Your task to perform on an android device: Open Google Chrome and click the shortcut for Amazon.com Image 0: 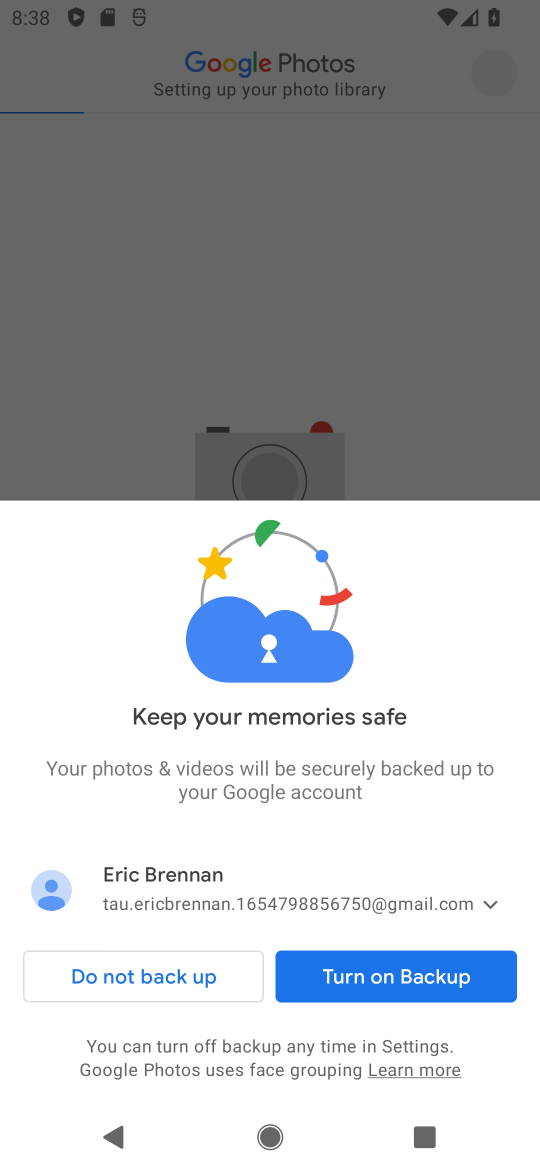
Step 0: press home button
Your task to perform on an android device: Open Google Chrome and click the shortcut for Amazon.com Image 1: 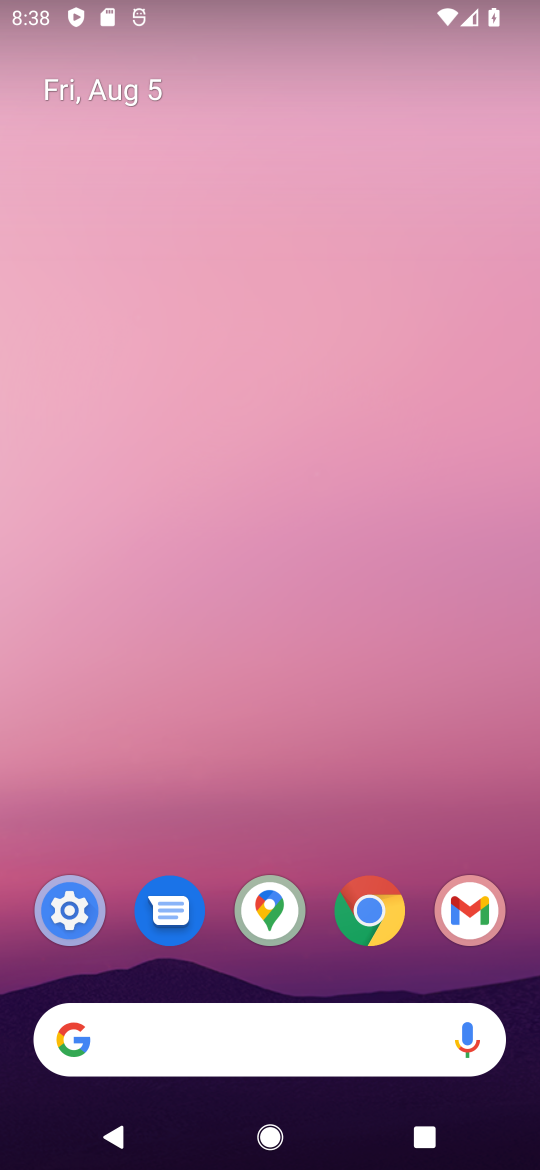
Step 1: click (365, 908)
Your task to perform on an android device: Open Google Chrome and click the shortcut for Amazon.com Image 2: 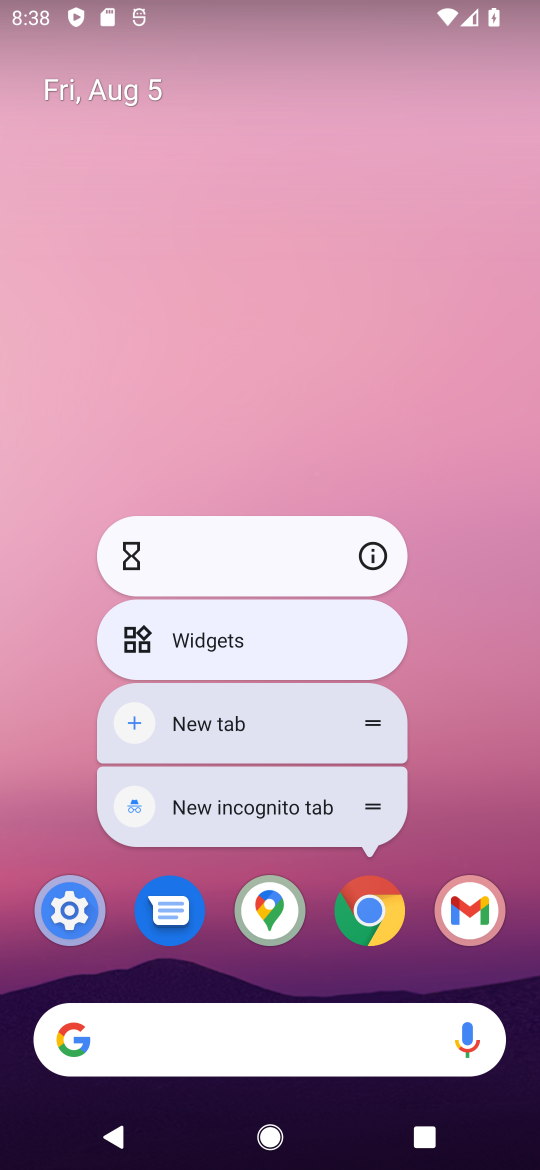
Step 2: click (367, 908)
Your task to perform on an android device: Open Google Chrome and click the shortcut for Amazon.com Image 3: 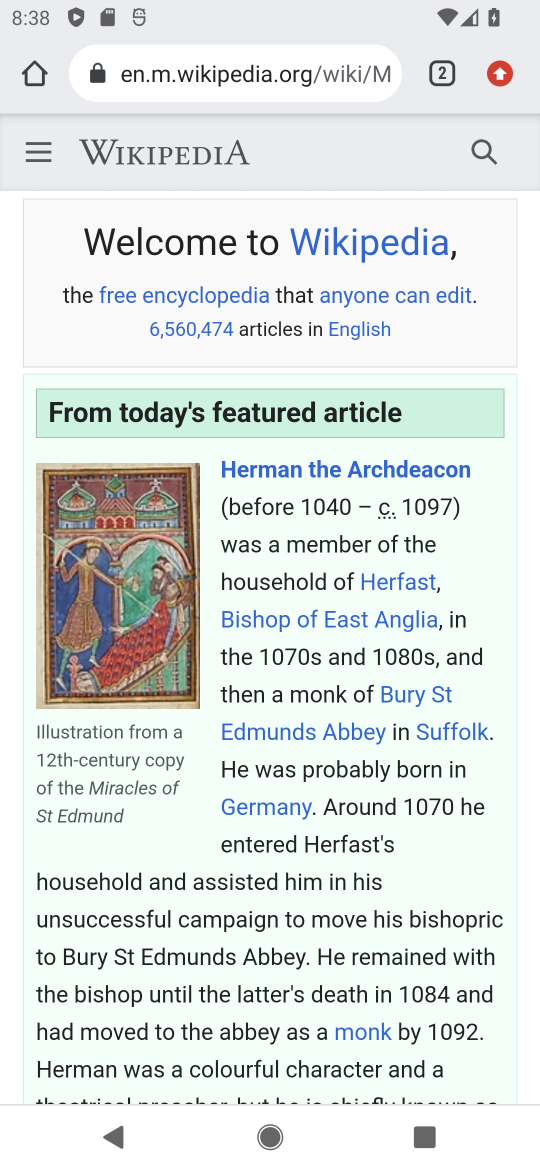
Step 3: drag from (502, 78) to (326, 248)
Your task to perform on an android device: Open Google Chrome and click the shortcut for Amazon.com Image 4: 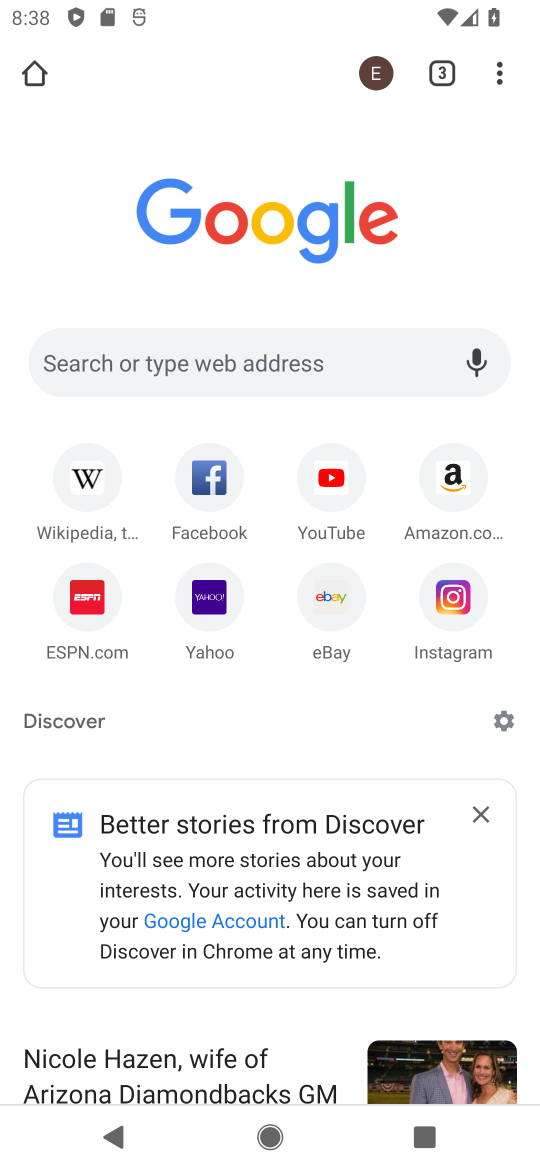
Step 4: click (454, 470)
Your task to perform on an android device: Open Google Chrome and click the shortcut for Amazon.com Image 5: 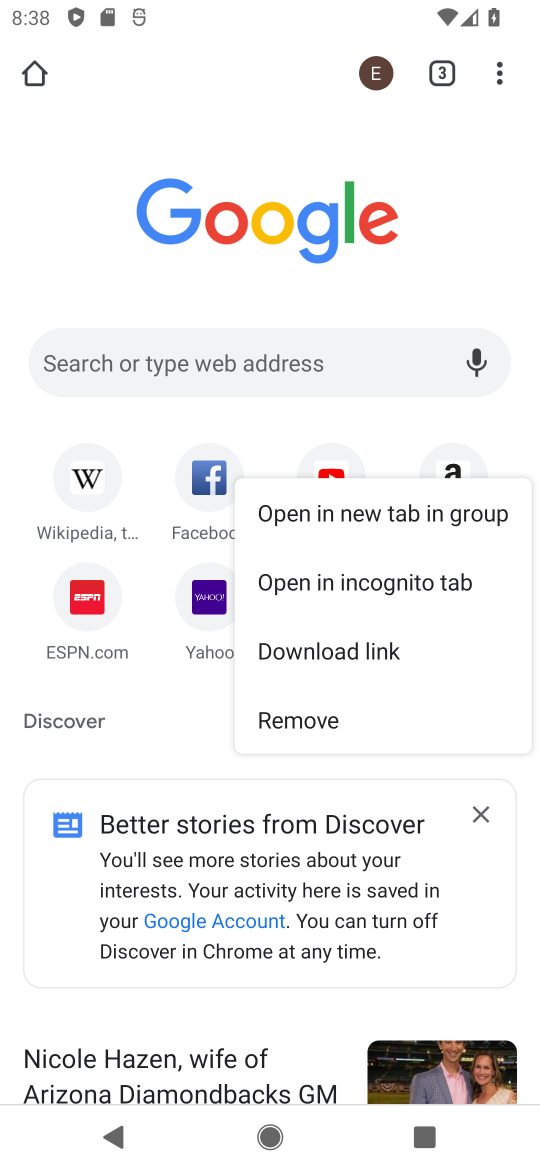
Step 5: click (456, 460)
Your task to perform on an android device: Open Google Chrome and click the shortcut for Amazon.com Image 6: 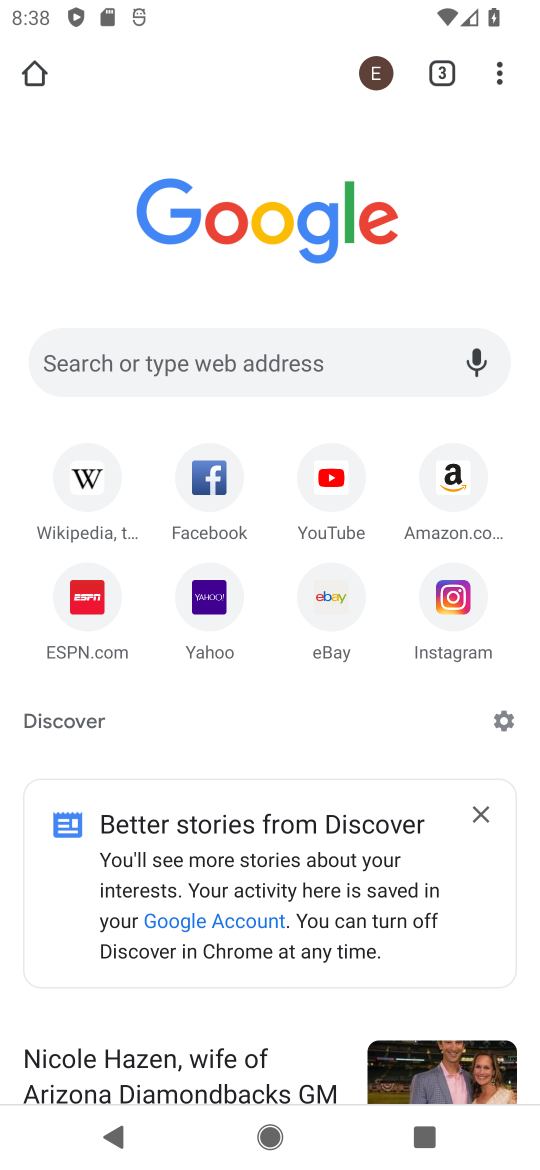
Step 6: click (451, 478)
Your task to perform on an android device: Open Google Chrome and click the shortcut for Amazon.com Image 7: 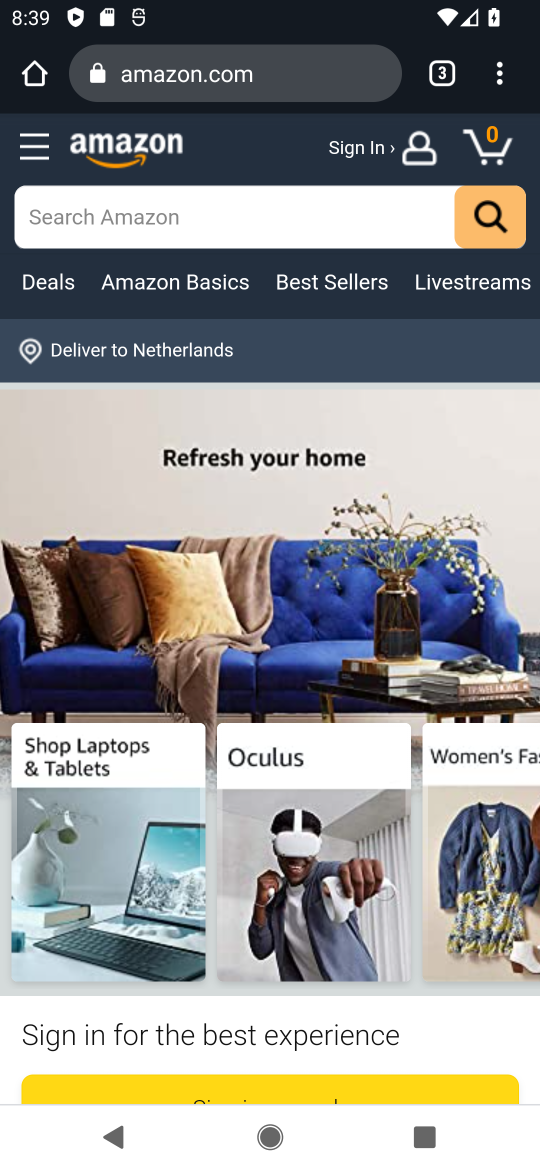
Step 7: task complete